Your task to perform on an android device: turn off translation in the chrome app Image 0: 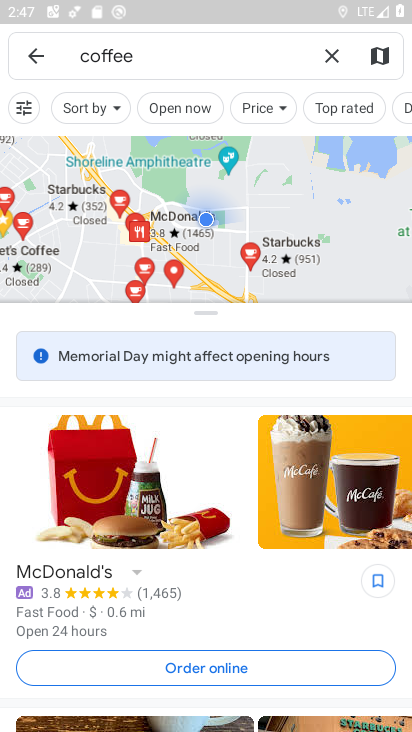
Step 0: press home button
Your task to perform on an android device: turn off translation in the chrome app Image 1: 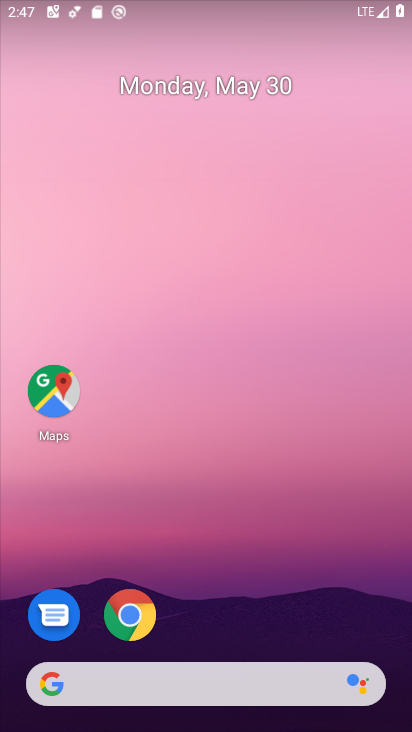
Step 1: click (127, 611)
Your task to perform on an android device: turn off translation in the chrome app Image 2: 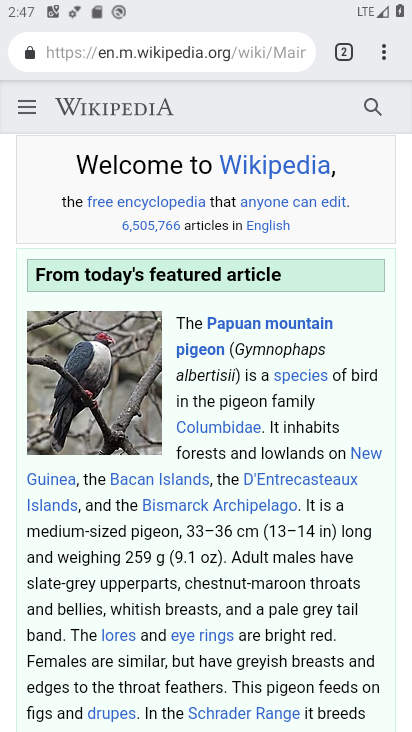
Step 2: click (377, 59)
Your task to perform on an android device: turn off translation in the chrome app Image 3: 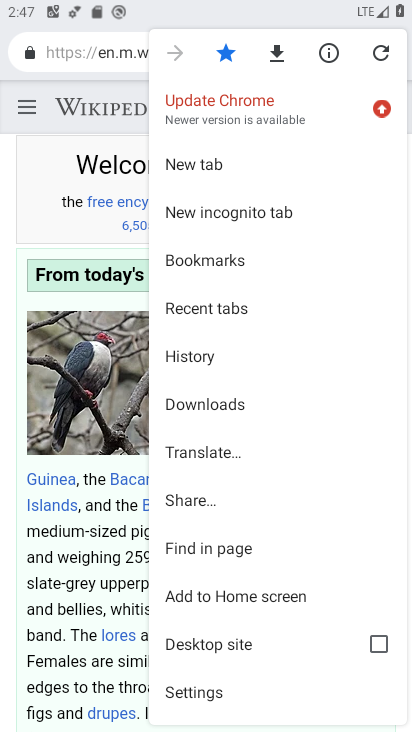
Step 3: click (214, 682)
Your task to perform on an android device: turn off translation in the chrome app Image 4: 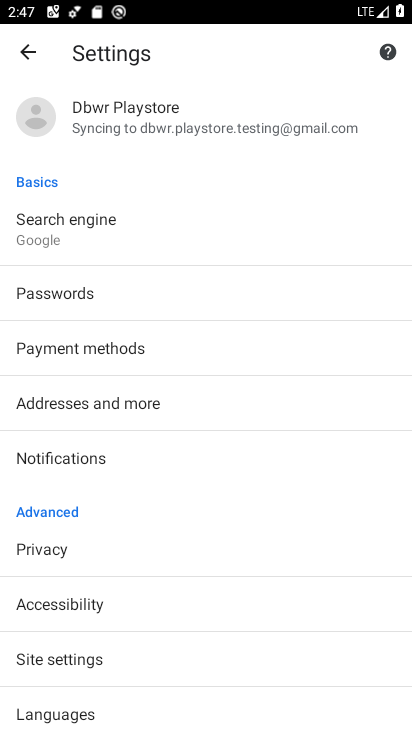
Step 4: click (216, 699)
Your task to perform on an android device: turn off translation in the chrome app Image 5: 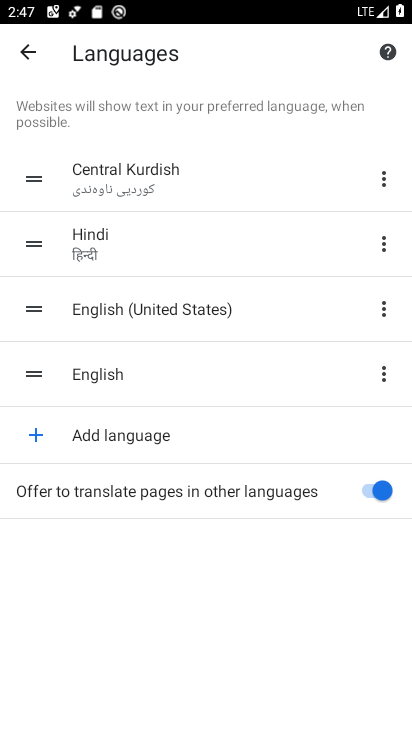
Step 5: click (379, 476)
Your task to perform on an android device: turn off translation in the chrome app Image 6: 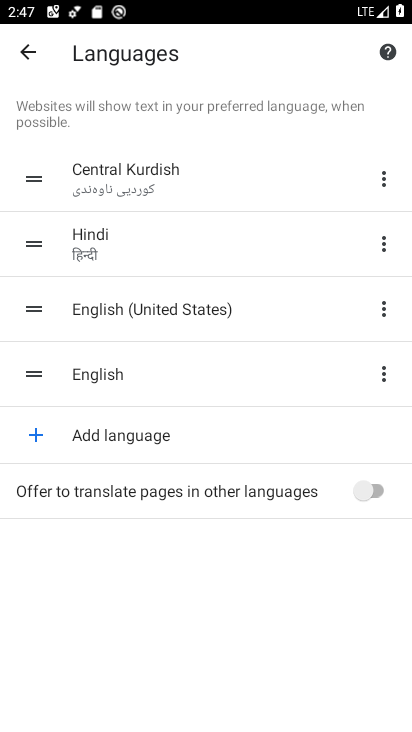
Step 6: task complete